Your task to perform on an android device: Open Maps and search for coffee Image 0: 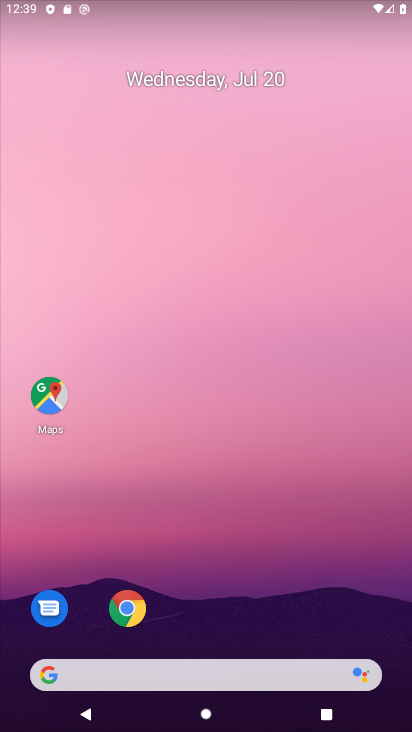
Step 0: click (48, 406)
Your task to perform on an android device: Open Maps and search for coffee Image 1: 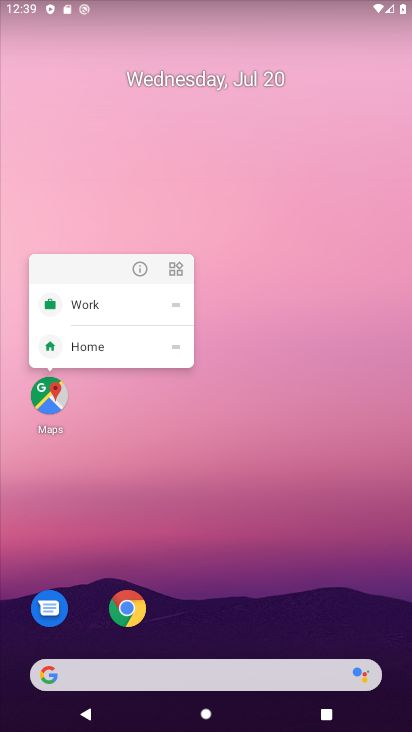
Step 1: click (51, 399)
Your task to perform on an android device: Open Maps and search for coffee Image 2: 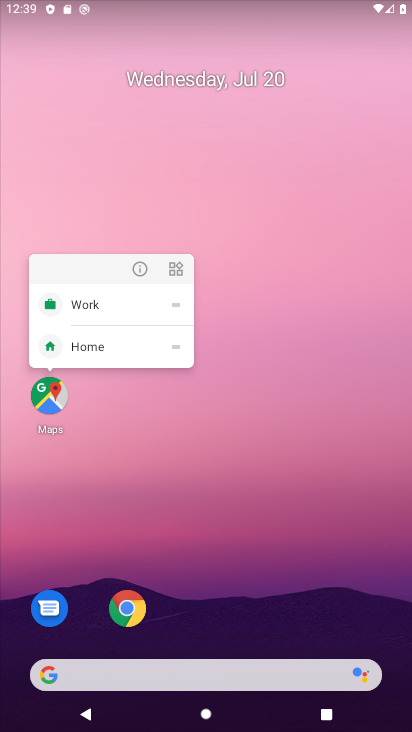
Step 2: click (51, 399)
Your task to perform on an android device: Open Maps and search for coffee Image 3: 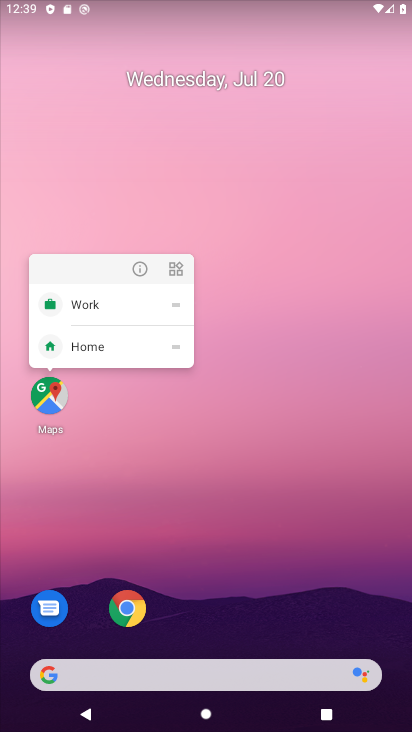
Step 3: click (63, 386)
Your task to perform on an android device: Open Maps and search for coffee Image 4: 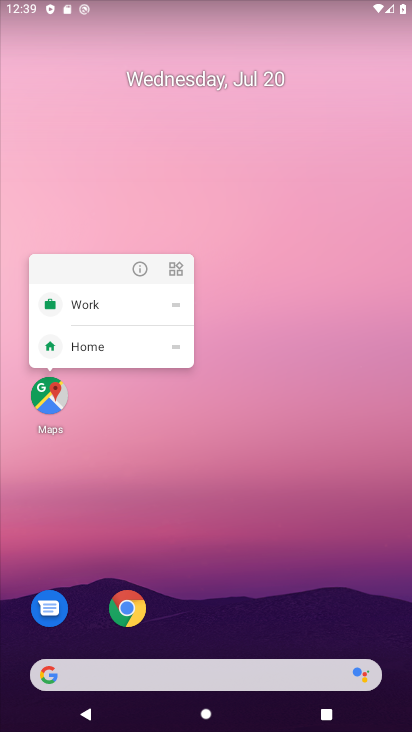
Step 4: click (54, 396)
Your task to perform on an android device: Open Maps and search for coffee Image 5: 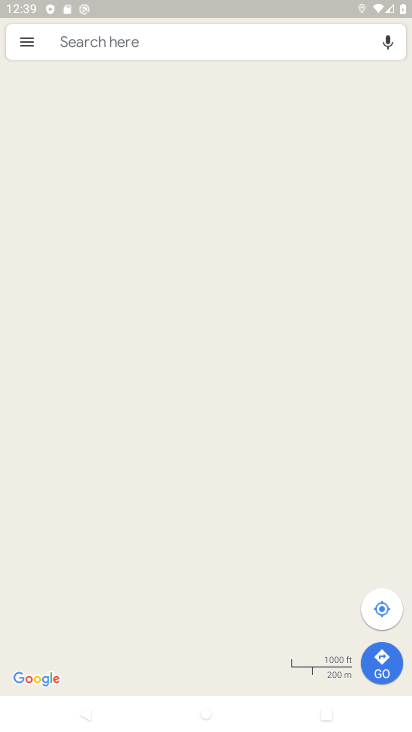
Step 5: click (124, 35)
Your task to perform on an android device: Open Maps and search for coffee Image 6: 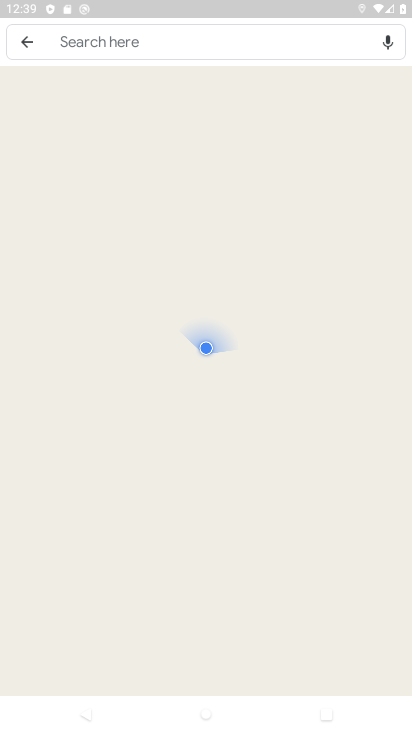
Step 6: click (136, 42)
Your task to perform on an android device: Open Maps and search for coffee Image 7: 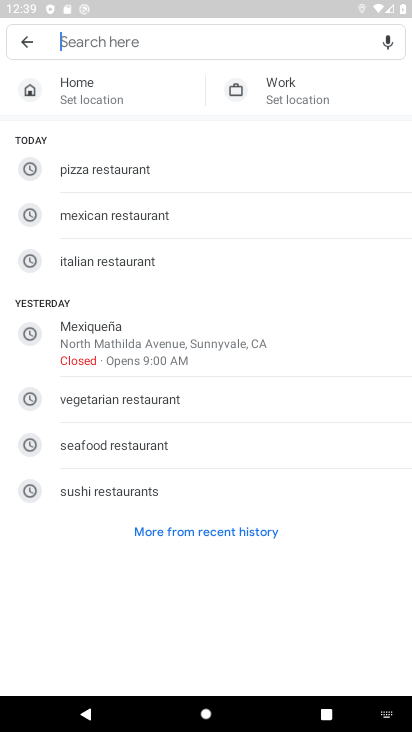
Step 7: type "Coffee"
Your task to perform on an android device: Open Maps and search for coffee Image 8: 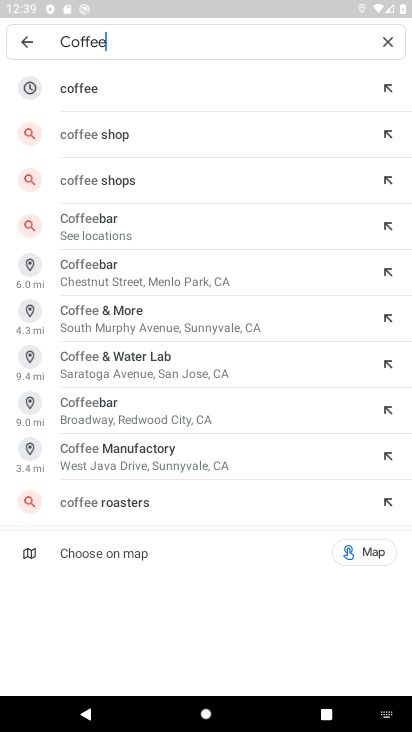
Step 8: click (159, 87)
Your task to perform on an android device: Open Maps and search for coffee Image 9: 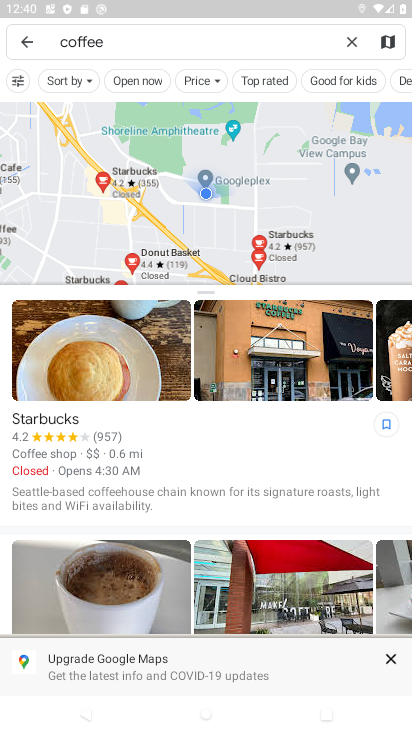
Step 9: task complete